Your task to perform on an android device: Go to Yahoo.com Image 0: 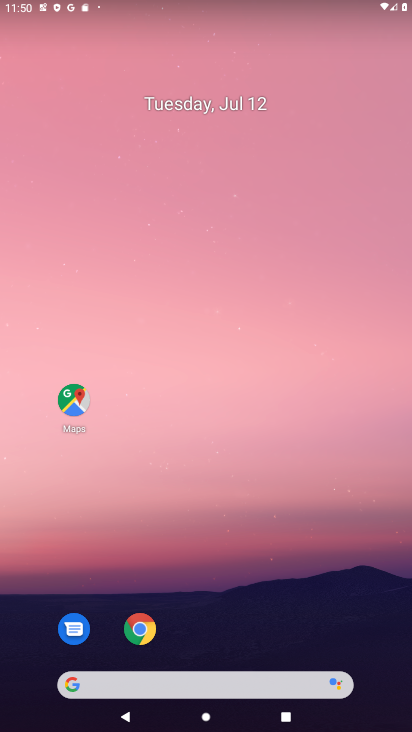
Step 0: drag from (271, 565) to (211, 7)
Your task to perform on an android device: Go to Yahoo.com Image 1: 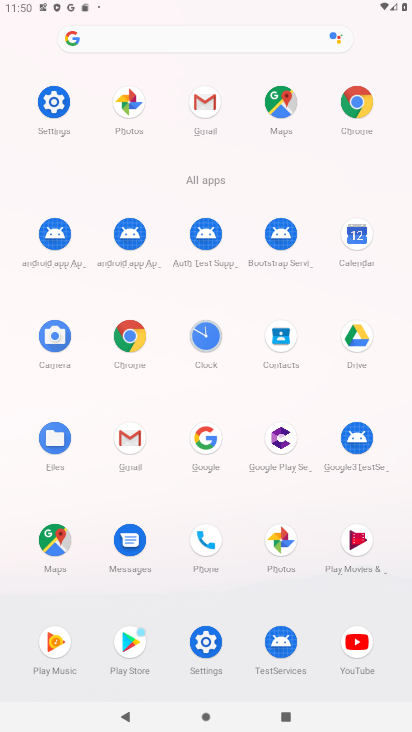
Step 1: click (359, 105)
Your task to perform on an android device: Go to Yahoo.com Image 2: 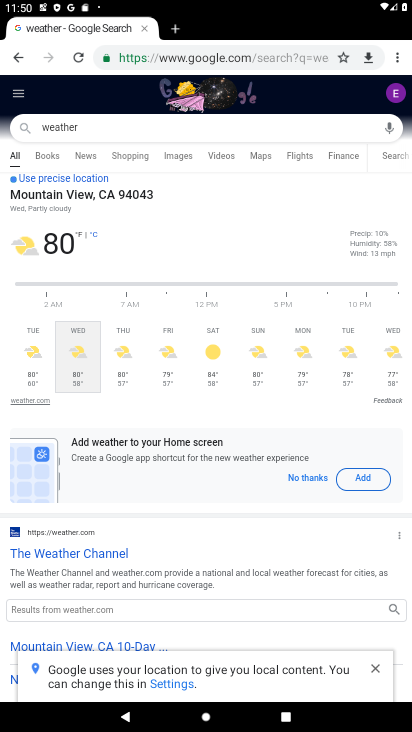
Step 2: click (123, 128)
Your task to perform on an android device: Go to Yahoo.com Image 3: 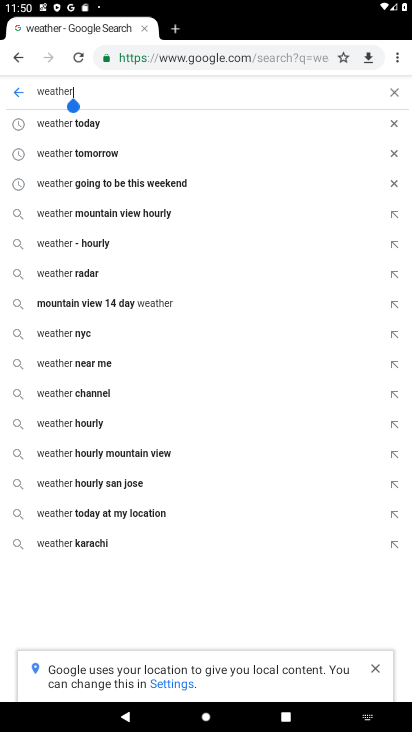
Step 3: click (399, 88)
Your task to perform on an android device: Go to Yahoo.com Image 4: 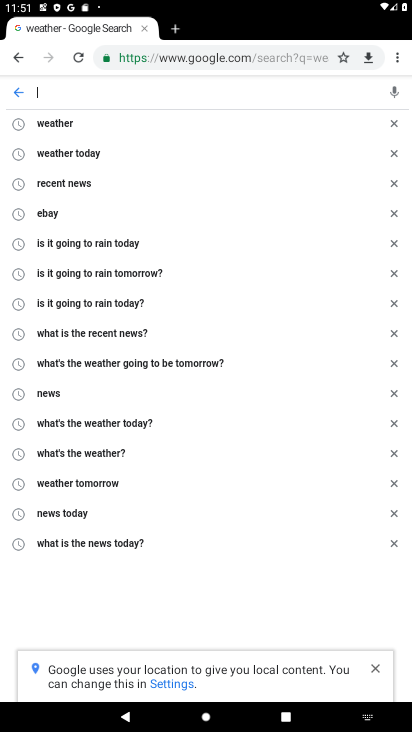
Step 4: type "yahoo.com"
Your task to perform on an android device: Go to Yahoo.com Image 5: 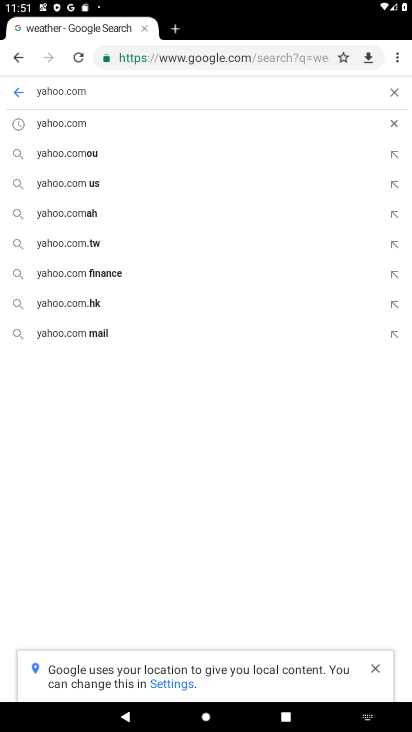
Step 5: click (65, 128)
Your task to perform on an android device: Go to Yahoo.com Image 6: 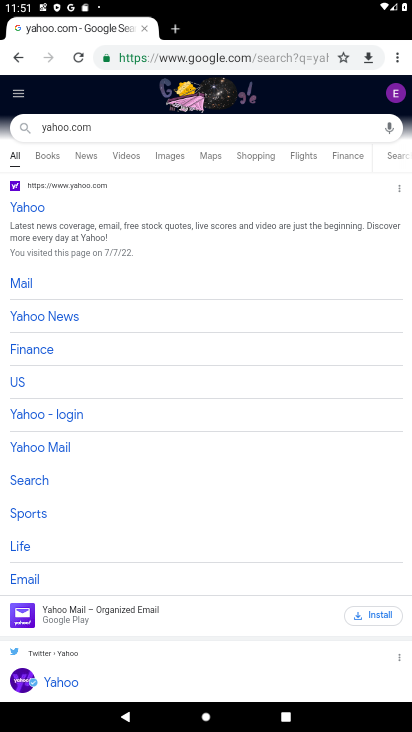
Step 6: click (33, 202)
Your task to perform on an android device: Go to Yahoo.com Image 7: 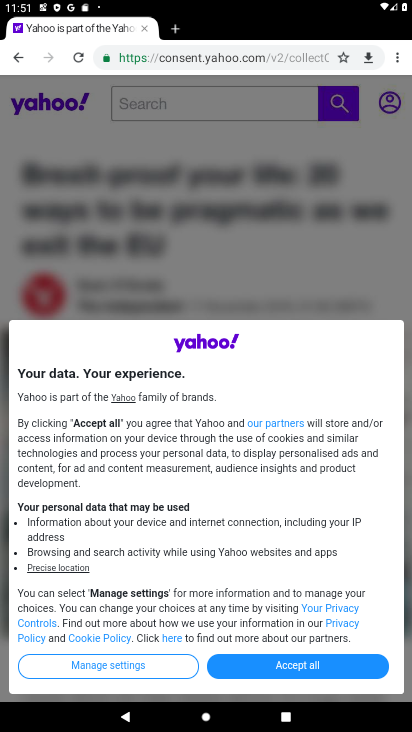
Step 7: task complete